Your task to perform on an android device: open app "Microsoft Outlook" Image 0: 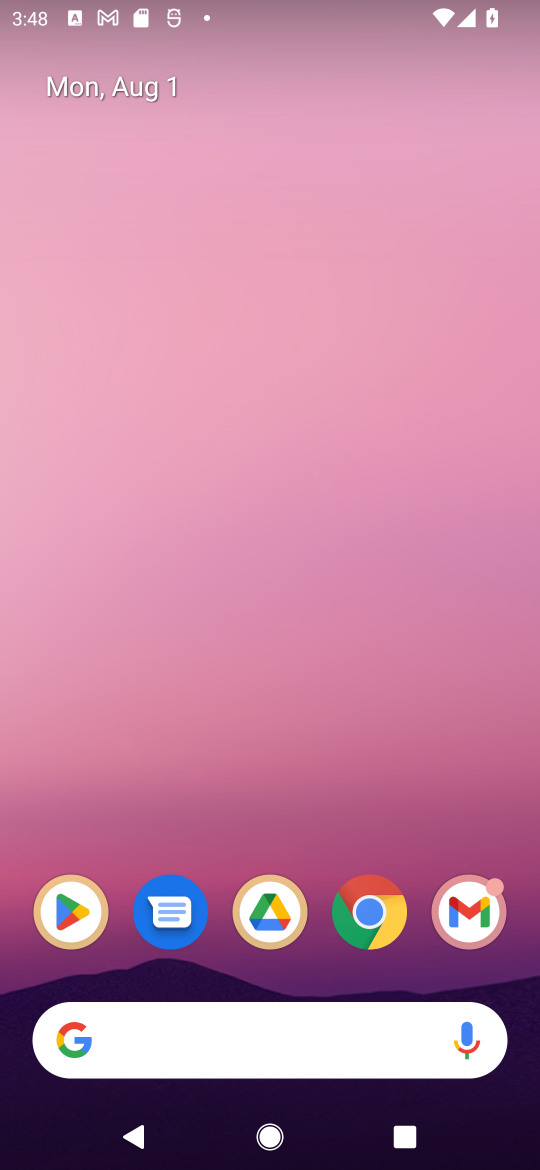
Step 0: click (52, 923)
Your task to perform on an android device: open app "Microsoft Outlook" Image 1: 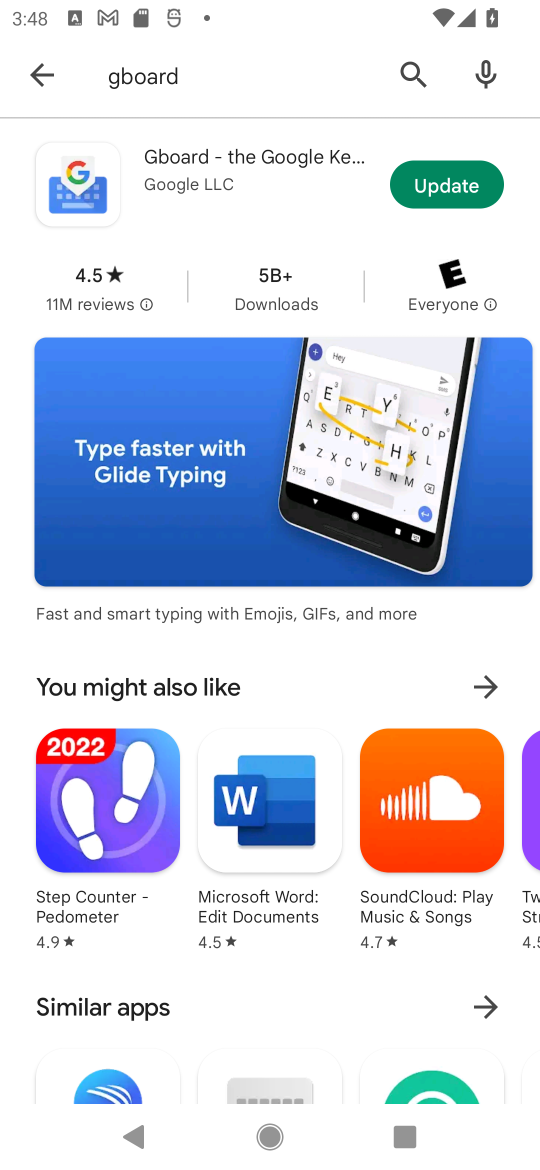
Step 1: click (409, 64)
Your task to perform on an android device: open app "Microsoft Outlook" Image 2: 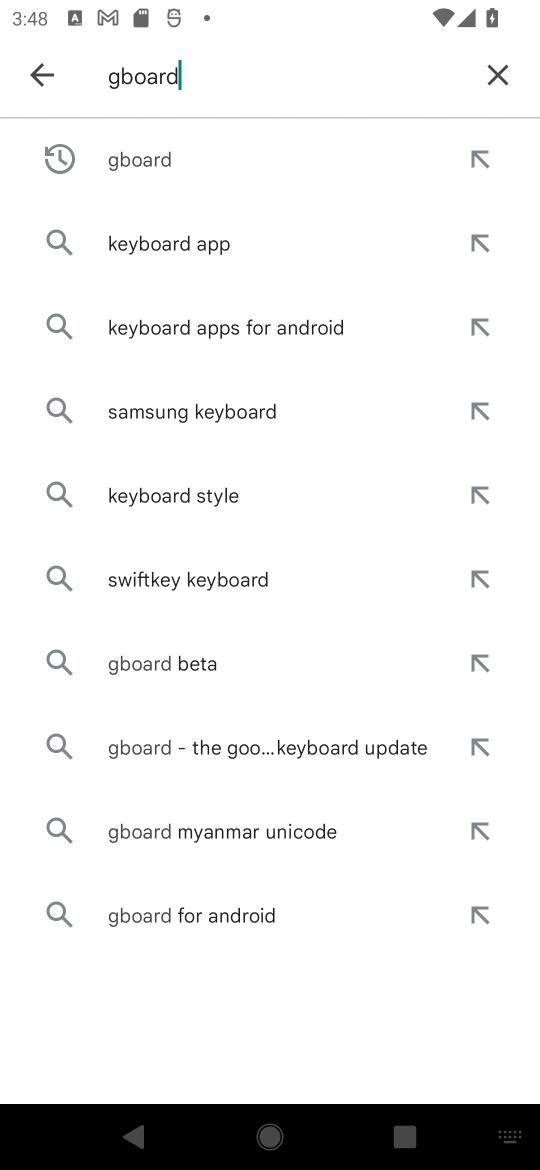
Step 2: click (501, 75)
Your task to perform on an android device: open app "Microsoft Outlook" Image 3: 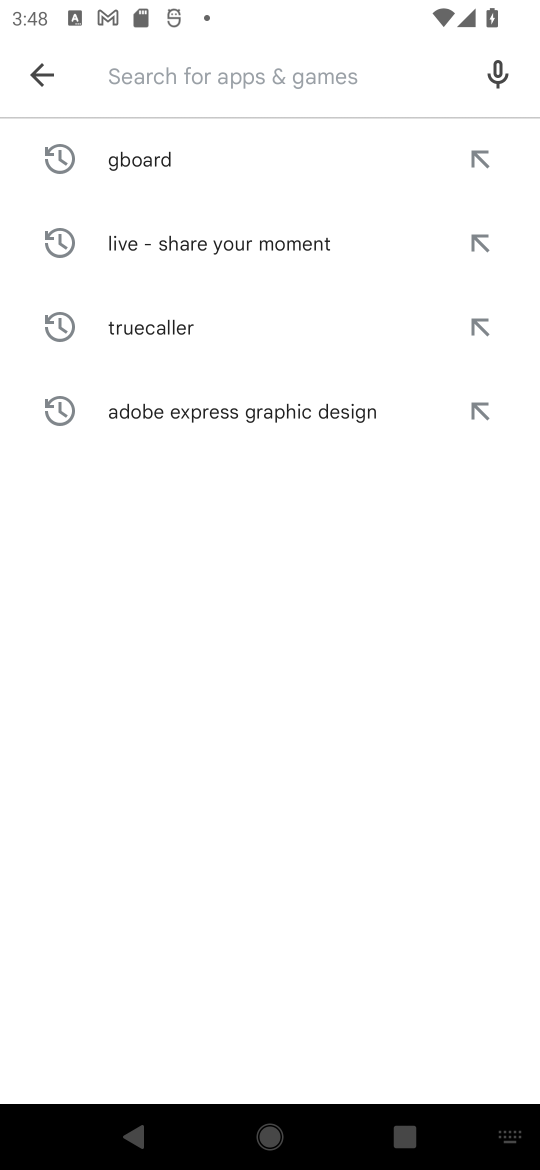
Step 3: type "Microsoft Outlook"
Your task to perform on an android device: open app "Microsoft Outlook" Image 4: 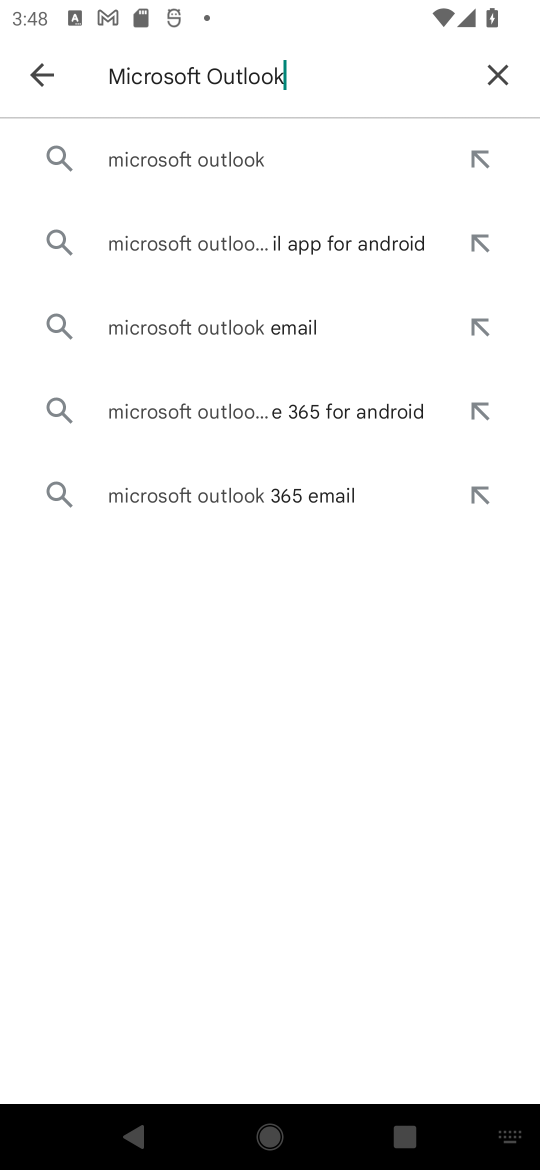
Step 4: click (199, 178)
Your task to perform on an android device: open app "Microsoft Outlook" Image 5: 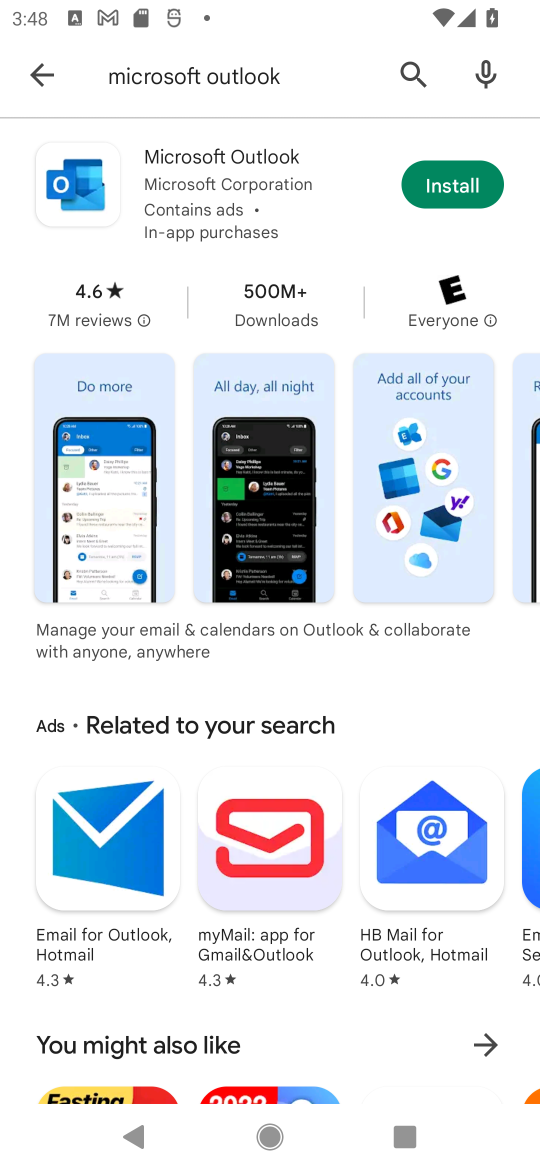
Step 5: task complete